Your task to perform on an android device: open the mobile data screen to see how much data has been used Image 0: 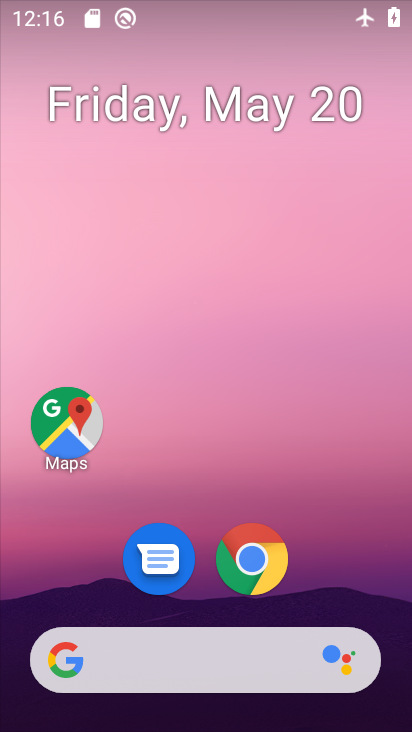
Step 0: drag from (364, 568) to (252, 200)
Your task to perform on an android device: open the mobile data screen to see how much data has been used Image 1: 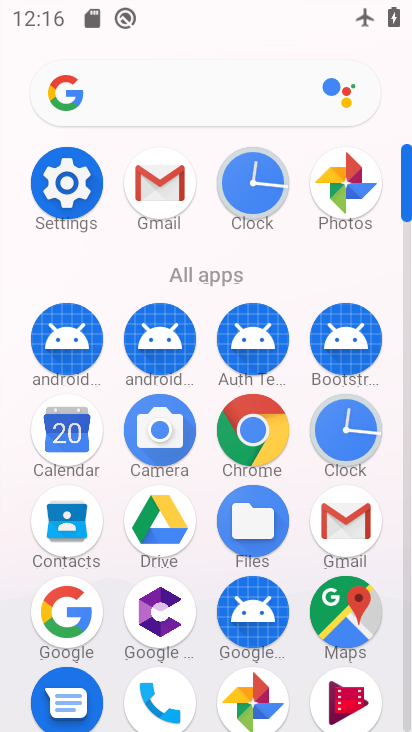
Step 1: click (69, 191)
Your task to perform on an android device: open the mobile data screen to see how much data has been used Image 2: 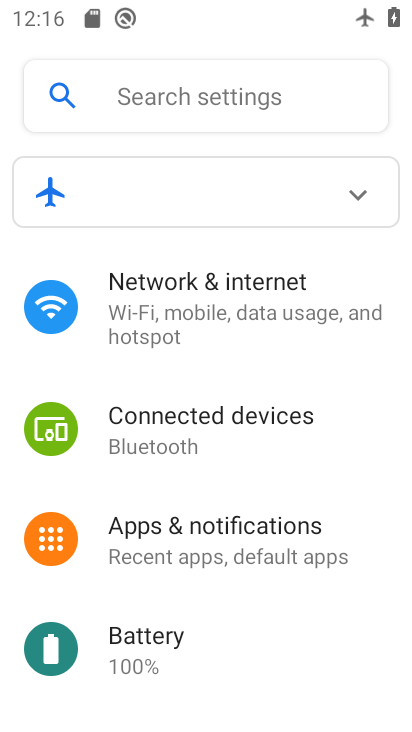
Step 2: click (196, 334)
Your task to perform on an android device: open the mobile data screen to see how much data has been used Image 3: 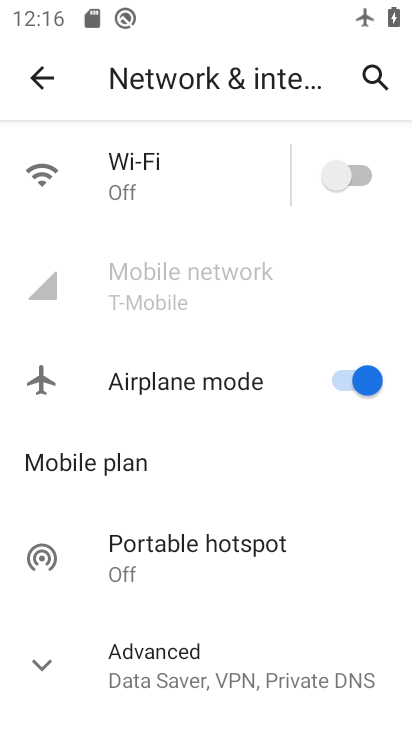
Step 3: click (209, 297)
Your task to perform on an android device: open the mobile data screen to see how much data has been used Image 4: 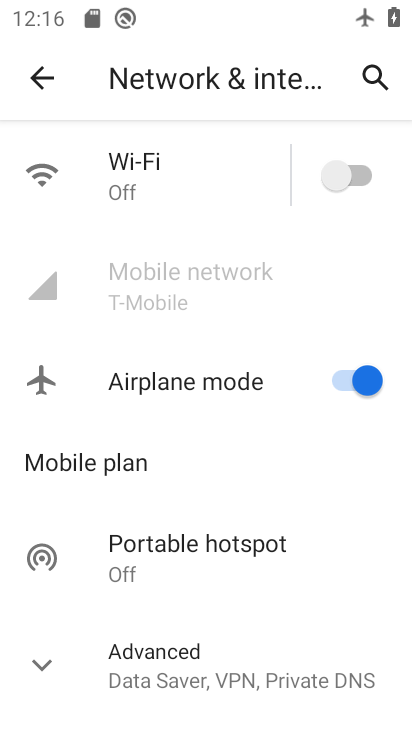
Step 4: task complete